Your task to perform on an android device: check the backup settings in the google photos Image 0: 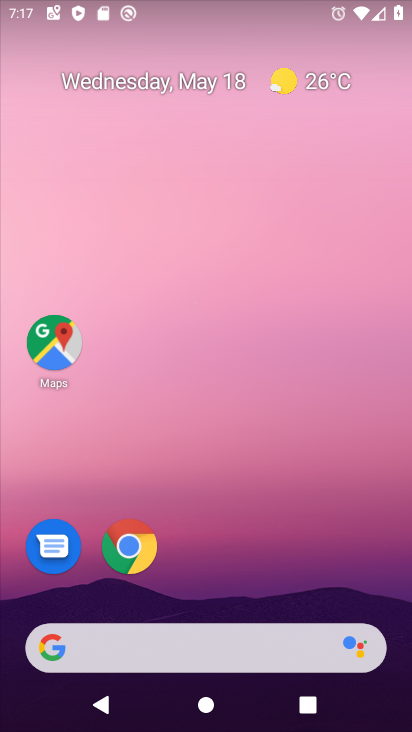
Step 0: drag from (381, 621) to (356, 17)
Your task to perform on an android device: check the backup settings in the google photos Image 1: 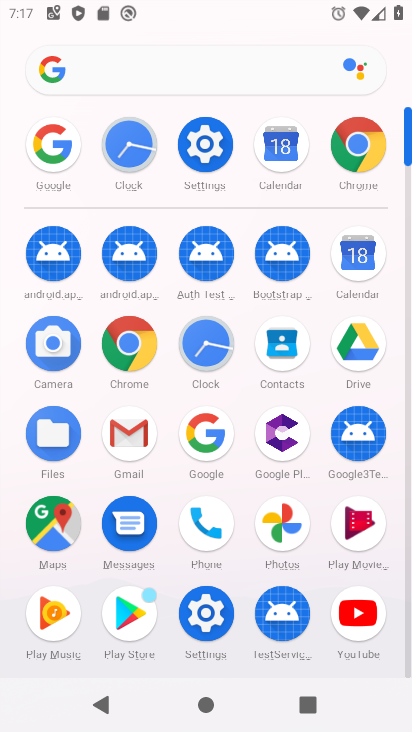
Step 1: click (289, 520)
Your task to perform on an android device: check the backup settings in the google photos Image 2: 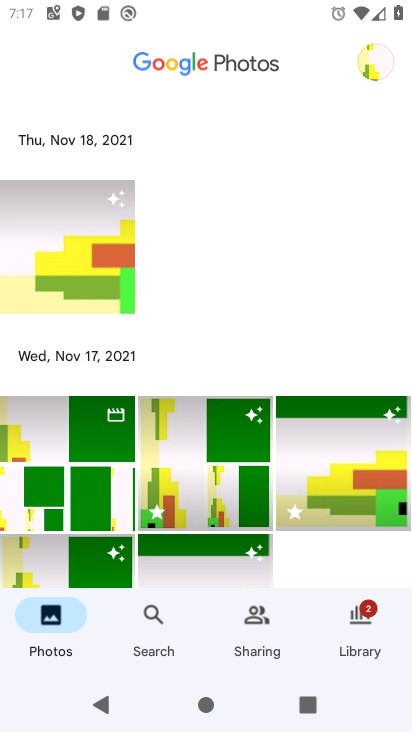
Step 2: click (383, 75)
Your task to perform on an android device: check the backup settings in the google photos Image 3: 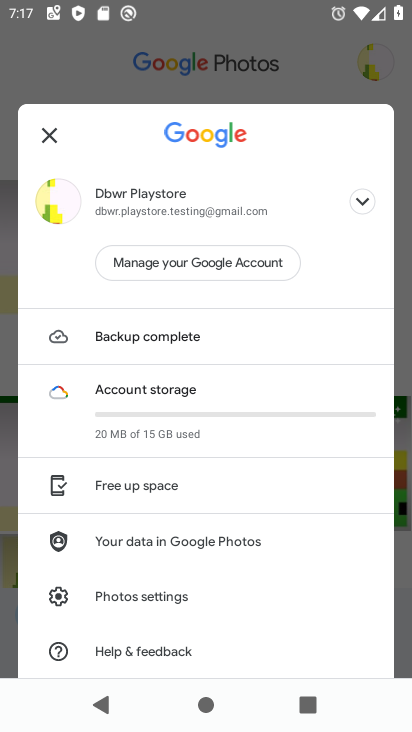
Step 3: click (152, 591)
Your task to perform on an android device: check the backup settings in the google photos Image 4: 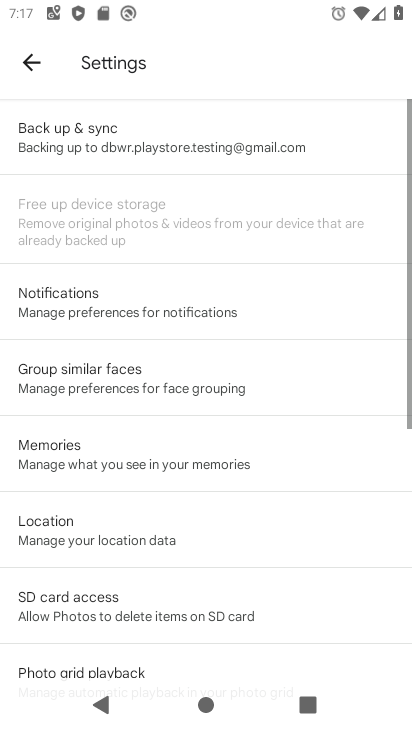
Step 4: click (140, 133)
Your task to perform on an android device: check the backup settings in the google photos Image 5: 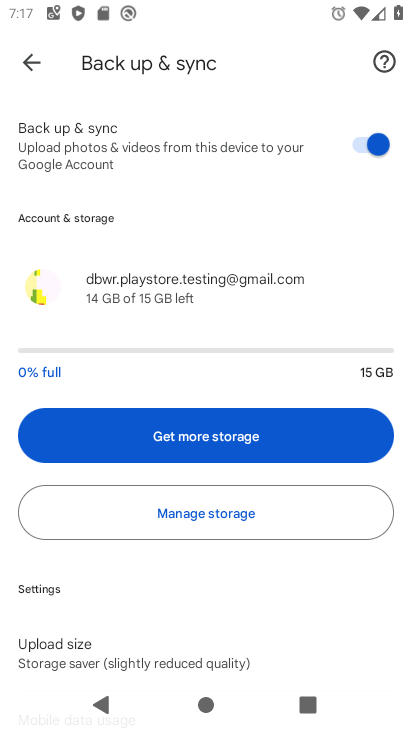
Step 5: task complete